Your task to perform on an android device: change the clock style Image 0: 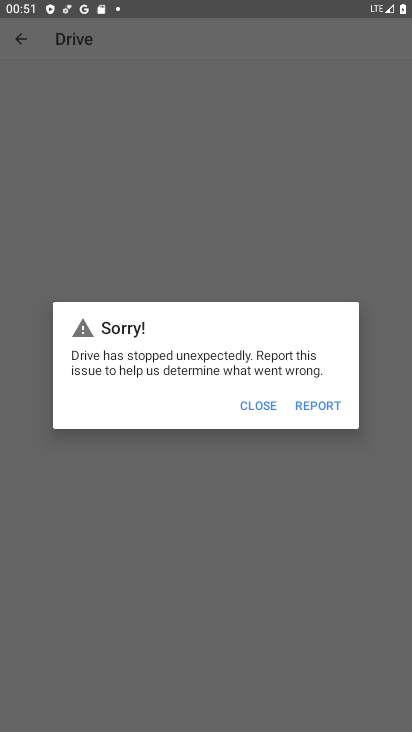
Step 0: press home button
Your task to perform on an android device: change the clock style Image 1: 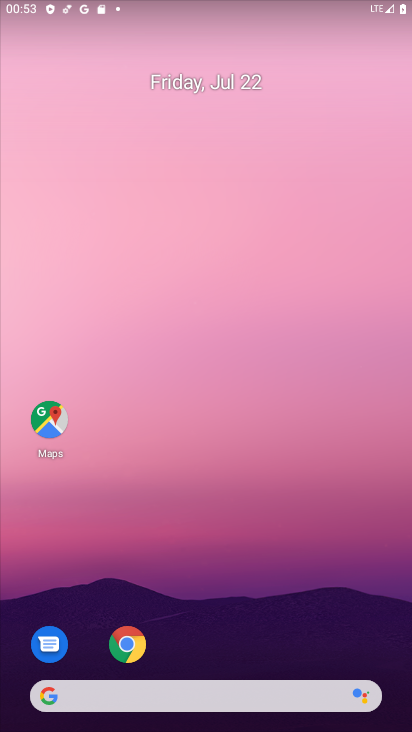
Step 1: drag from (255, 493) to (264, 36)
Your task to perform on an android device: change the clock style Image 2: 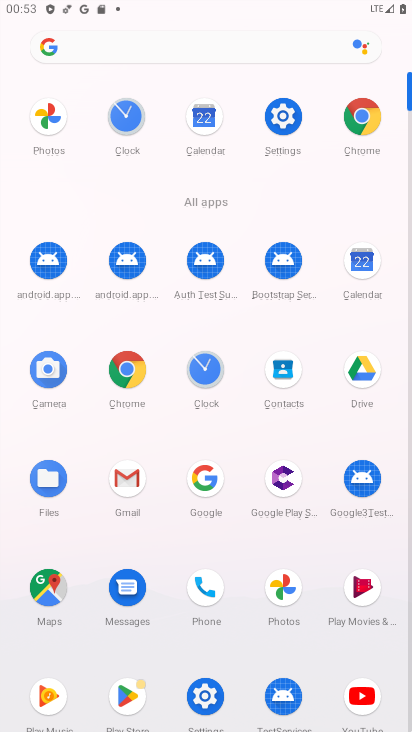
Step 2: click (207, 379)
Your task to perform on an android device: change the clock style Image 3: 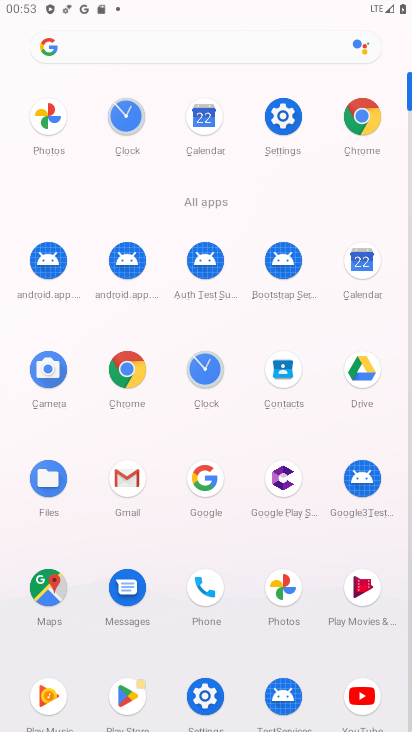
Step 3: click (207, 379)
Your task to perform on an android device: change the clock style Image 4: 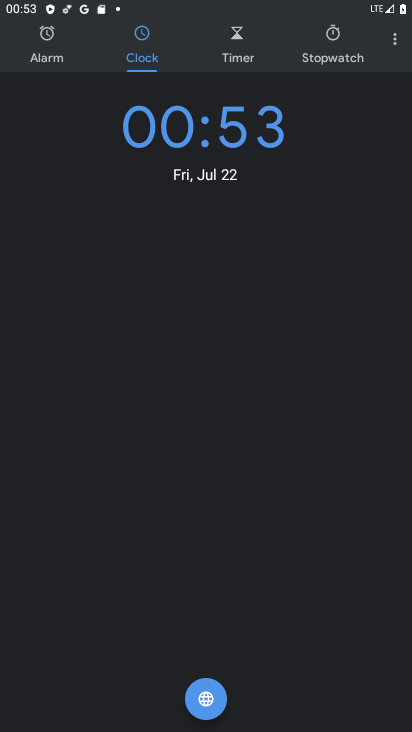
Step 4: click (396, 34)
Your task to perform on an android device: change the clock style Image 5: 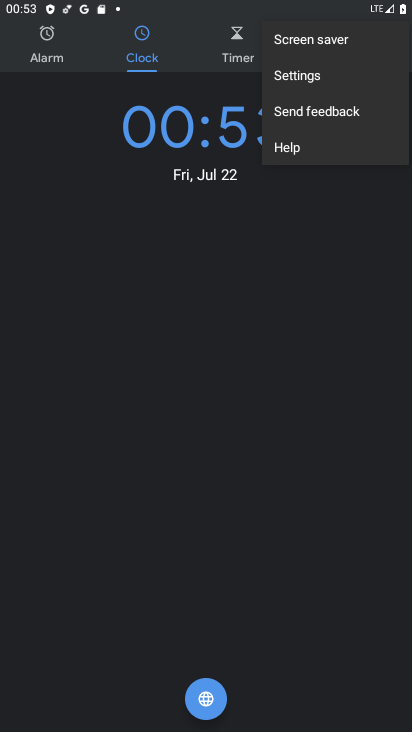
Step 5: click (330, 85)
Your task to perform on an android device: change the clock style Image 6: 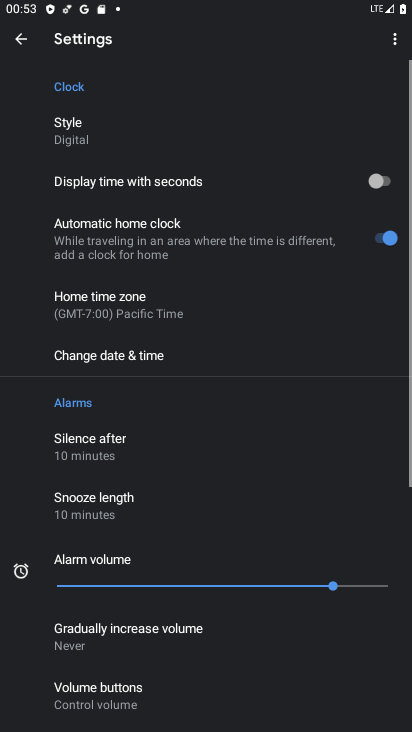
Step 6: click (89, 135)
Your task to perform on an android device: change the clock style Image 7: 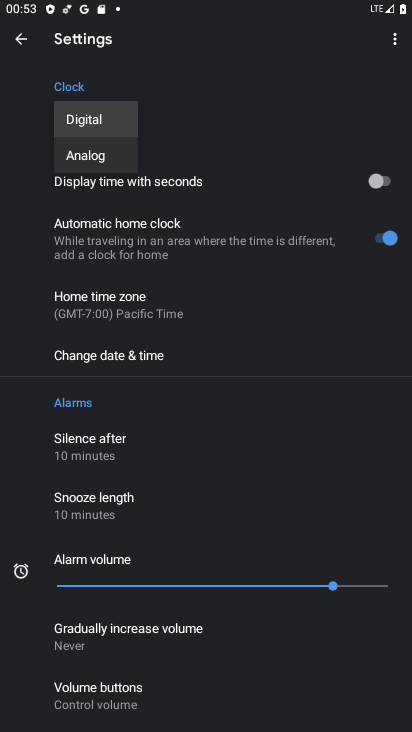
Step 7: click (89, 159)
Your task to perform on an android device: change the clock style Image 8: 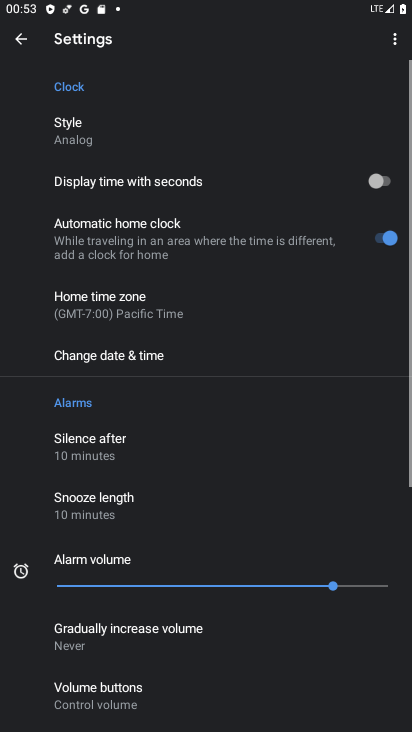
Step 8: task complete